Your task to perform on an android device: install app "Facebook Messenger" Image 0: 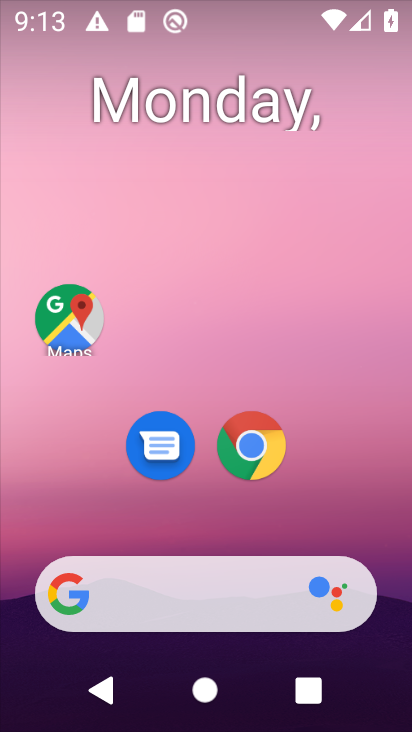
Step 0: drag from (390, 580) to (282, 50)
Your task to perform on an android device: install app "Facebook Messenger" Image 1: 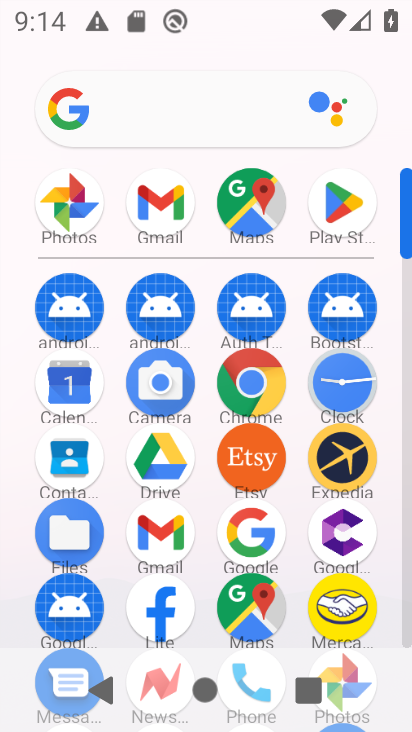
Step 1: click (354, 208)
Your task to perform on an android device: install app "Facebook Messenger" Image 2: 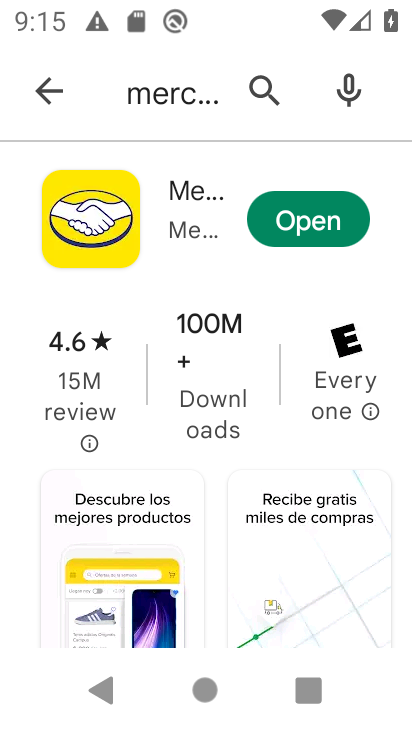
Step 2: press back button
Your task to perform on an android device: install app "Facebook Messenger" Image 3: 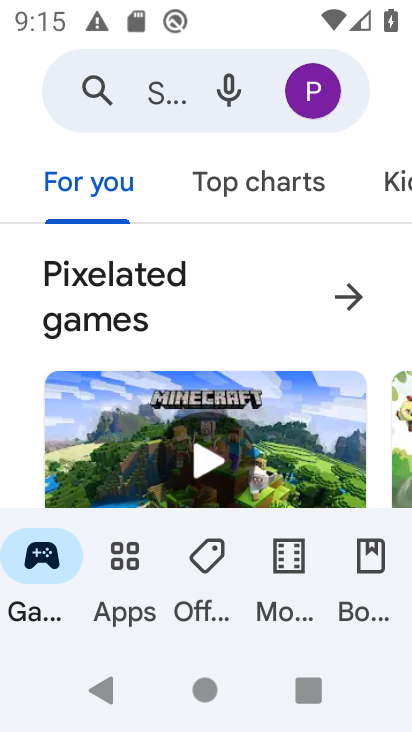
Step 3: click (152, 90)
Your task to perform on an android device: install app "Facebook Messenger" Image 4: 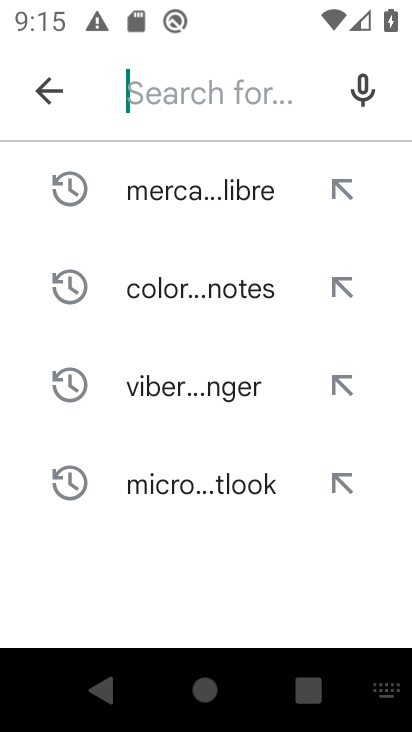
Step 4: type "Facebook Messenger"
Your task to perform on an android device: install app "Facebook Messenger" Image 5: 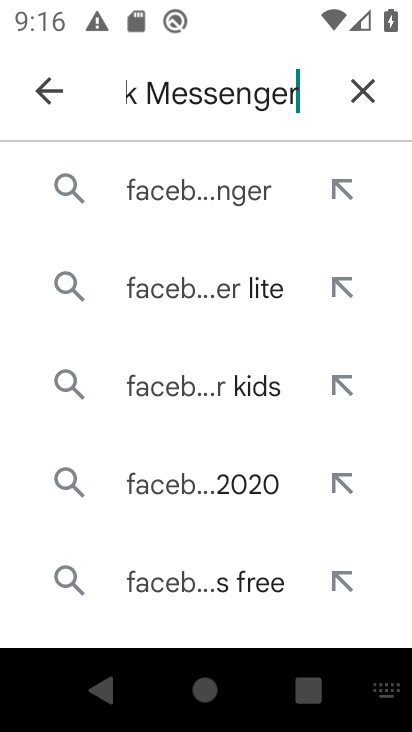
Step 5: click (177, 203)
Your task to perform on an android device: install app "Facebook Messenger" Image 6: 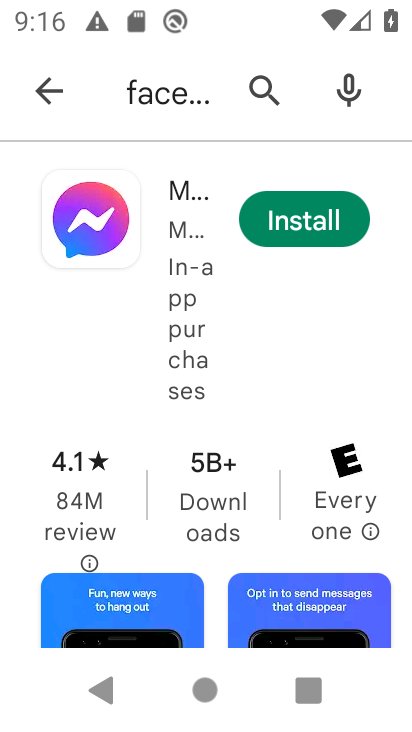
Step 6: click (279, 228)
Your task to perform on an android device: install app "Facebook Messenger" Image 7: 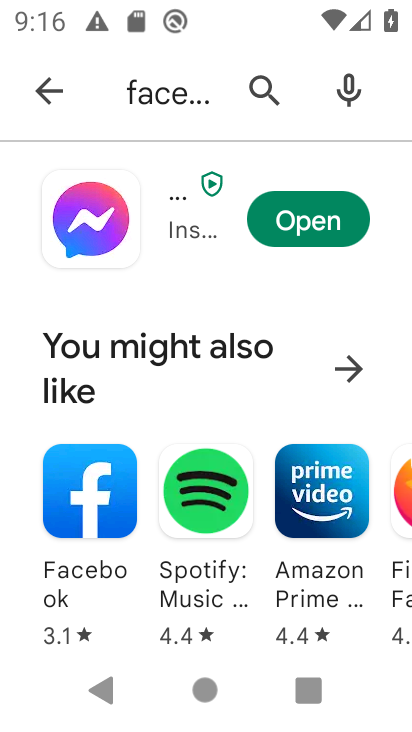
Step 7: task complete